Your task to perform on an android device: check battery use Image 0: 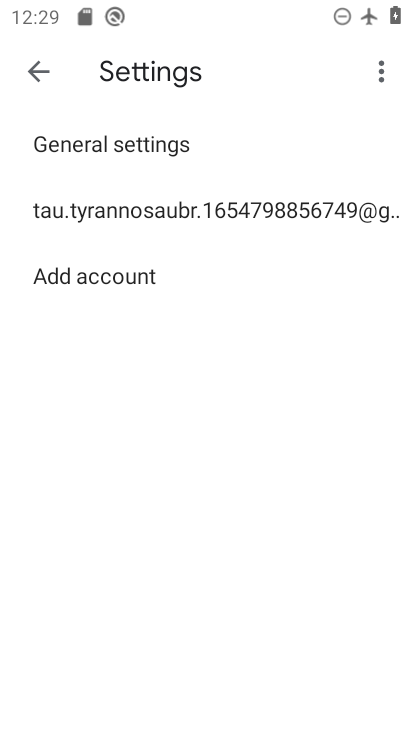
Step 0: press home button
Your task to perform on an android device: check battery use Image 1: 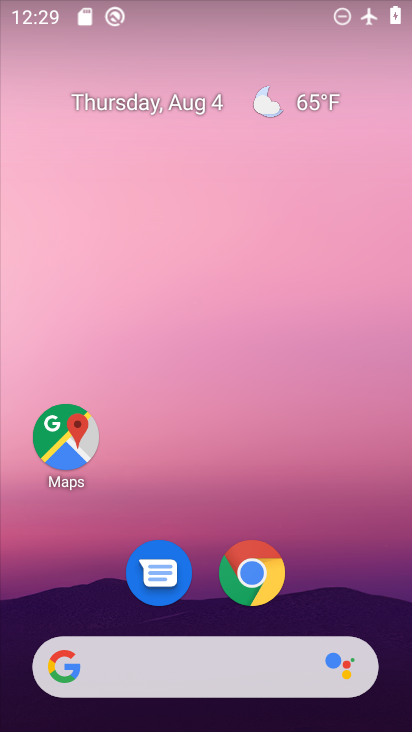
Step 1: drag from (313, 525) to (270, 289)
Your task to perform on an android device: check battery use Image 2: 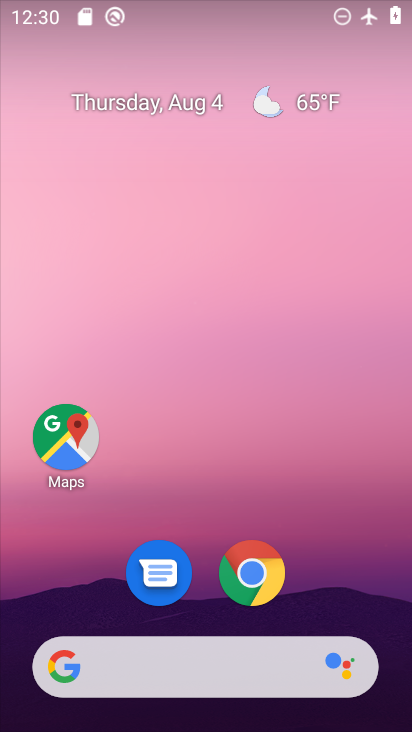
Step 2: drag from (354, 568) to (317, 56)
Your task to perform on an android device: check battery use Image 3: 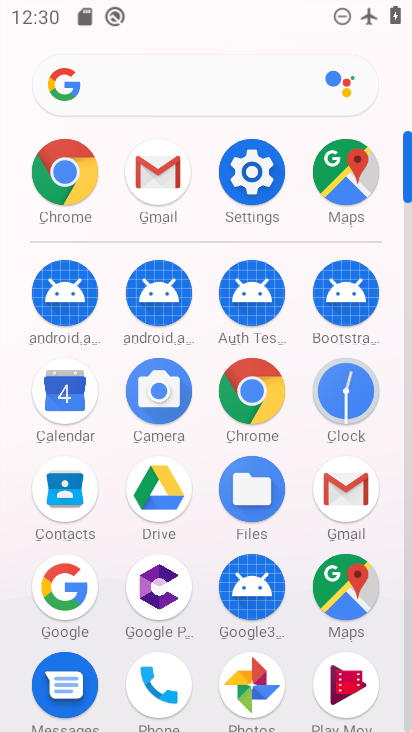
Step 3: click (244, 170)
Your task to perform on an android device: check battery use Image 4: 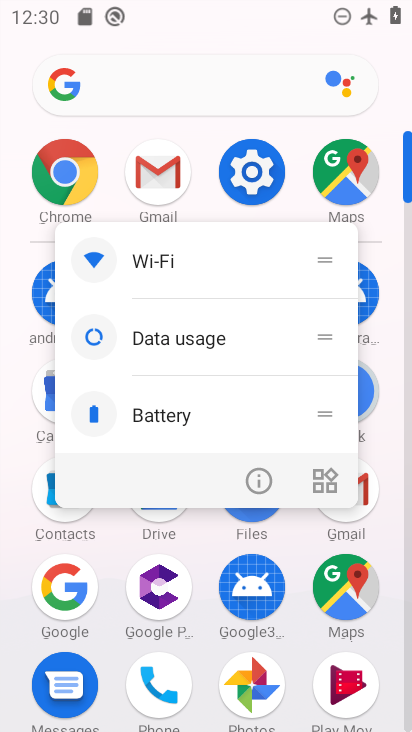
Step 4: click (205, 543)
Your task to perform on an android device: check battery use Image 5: 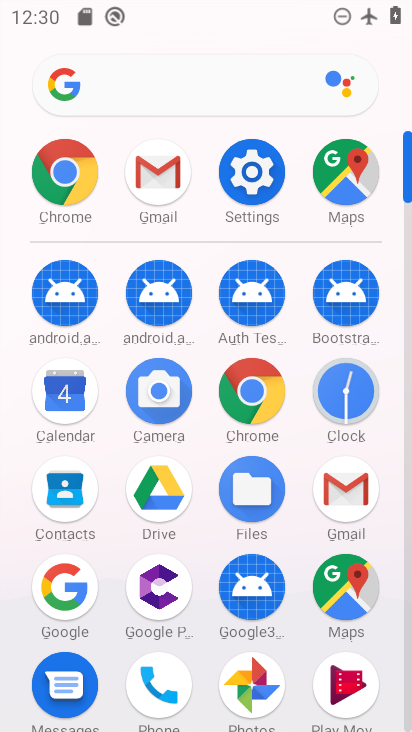
Step 5: drag from (214, 560) to (241, 284)
Your task to perform on an android device: check battery use Image 6: 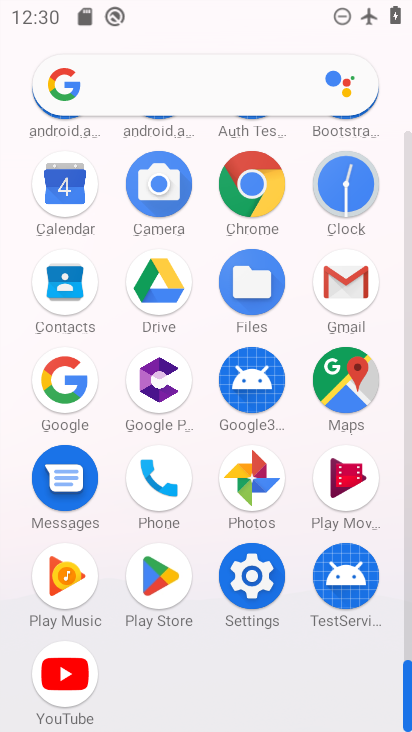
Step 6: click (258, 575)
Your task to perform on an android device: check battery use Image 7: 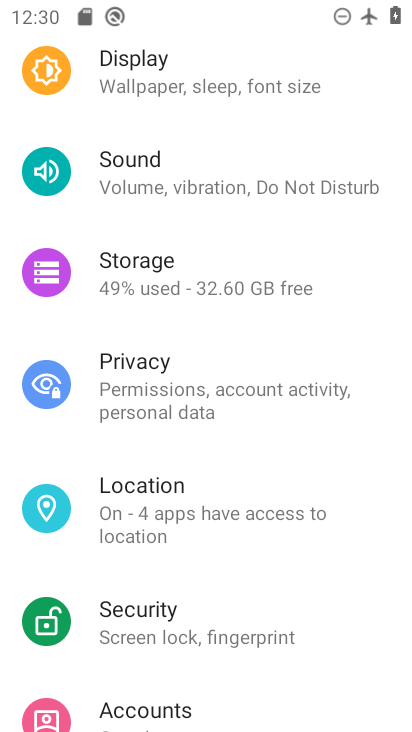
Step 7: drag from (275, 133) to (270, 446)
Your task to perform on an android device: check battery use Image 8: 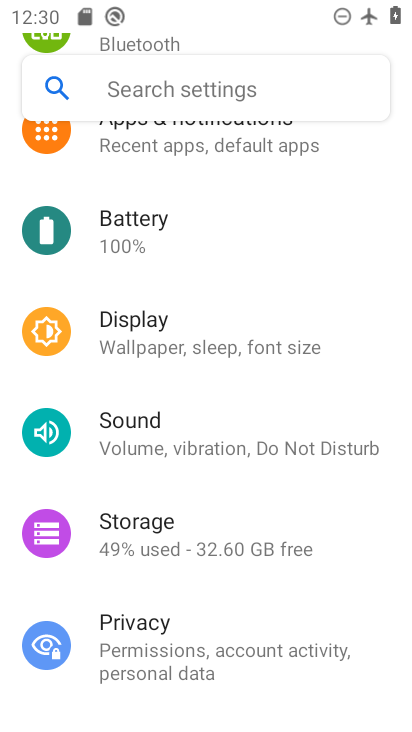
Step 8: click (147, 238)
Your task to perform on an android device: check battery use Image 9: 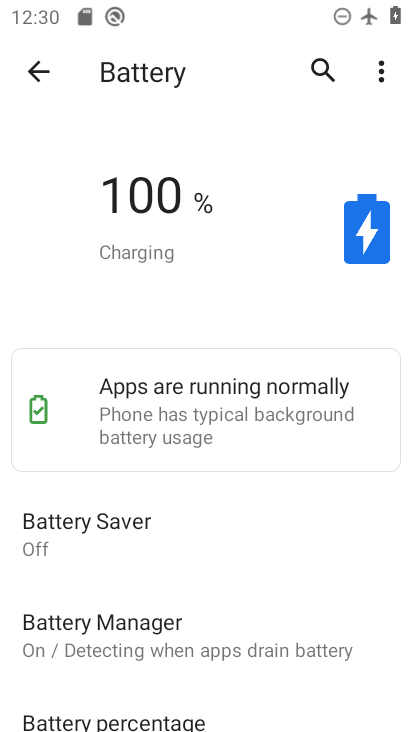
Step 9: click (375, 66)
Your task to perform on an android device: check battery use Image 10: 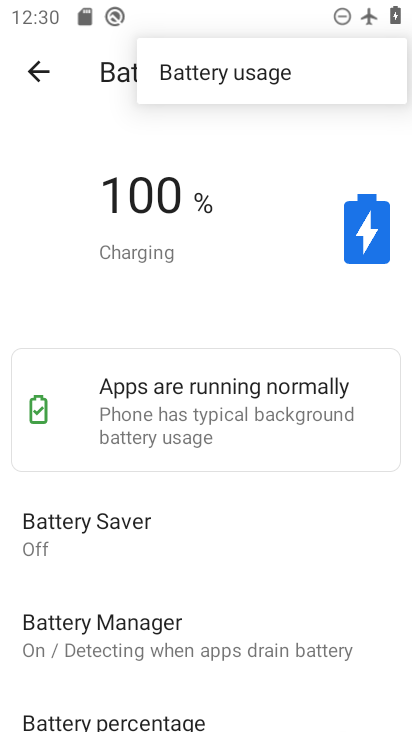
Step 10: click (230, 77)
Your task to perform on an android device: check battery use Image 11: 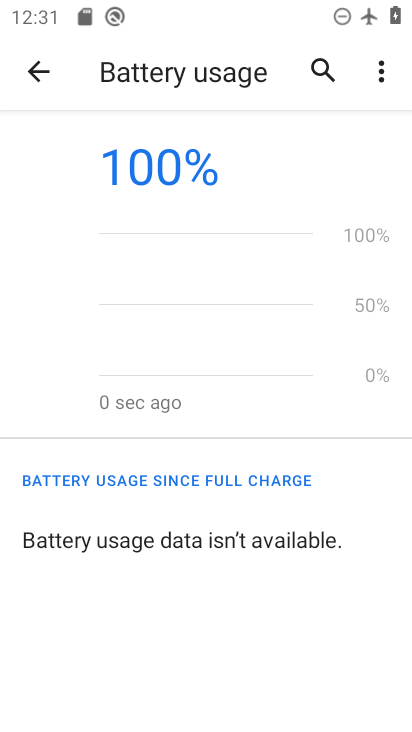
Step 11: task complete